Your task to perform on an android device: Go to Google Image 0: 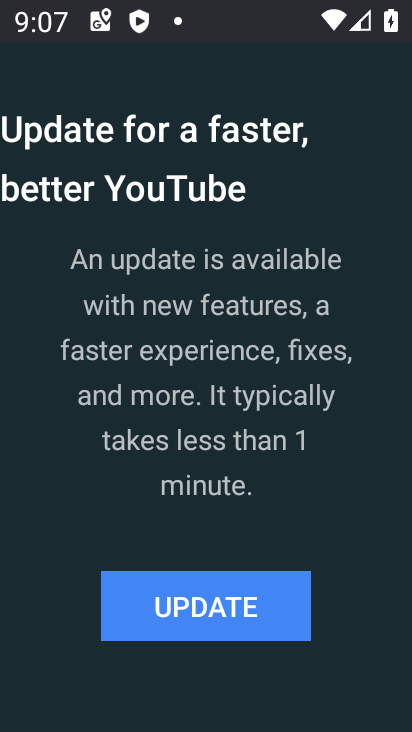
Step 0: press home button
Your task to perform on an android device: Go to Google Image 1: 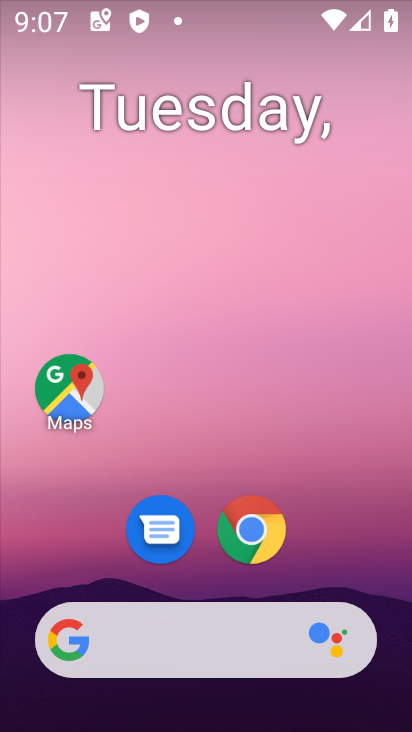
Step 1: drag from (158, 669) to (186, 186)
Your task to perform on an android device: Go to Google Image 2: 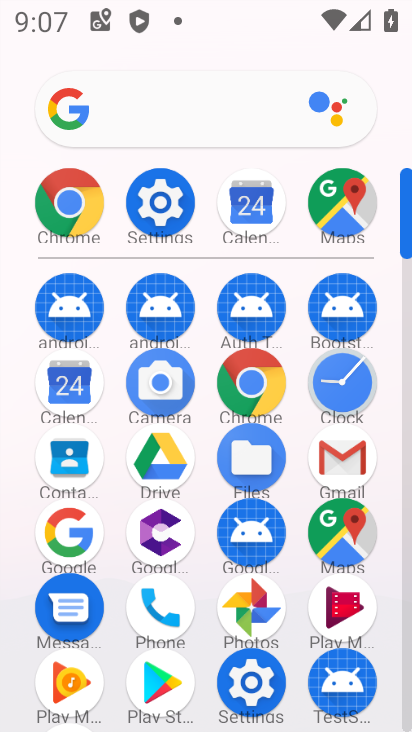
Step 2: drag from (147, 521) to (191, 314)
Your task to perform on an android device: Go to Google Image 3: 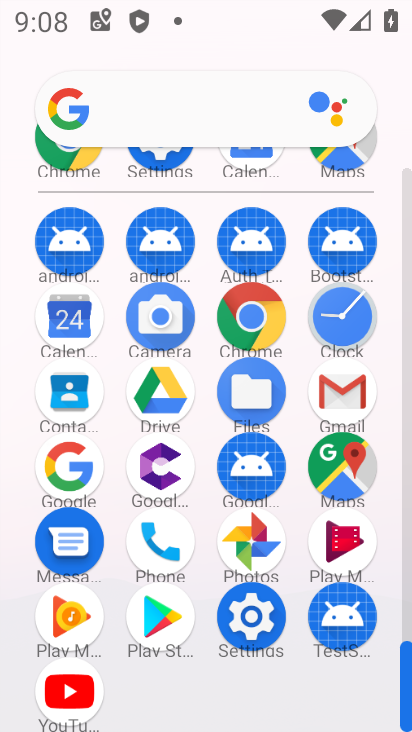
Step 3: click (84, 468)
Your task to perform on an android device: Go to Google Image 4: 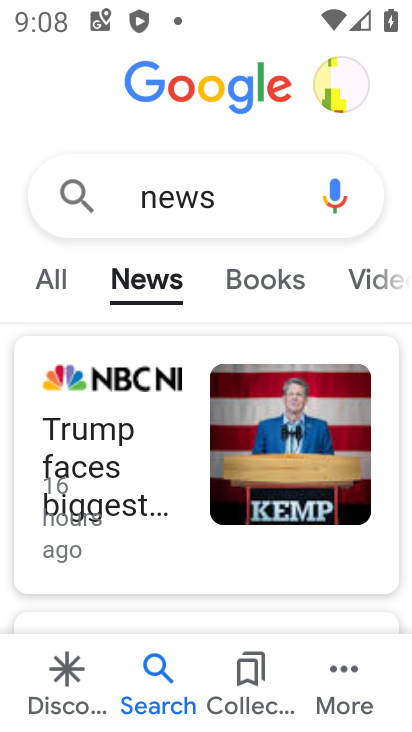
Step 4: task complete